Your task to perform on an android device: Open Google Chrome and open the bookmarks view Image 0: 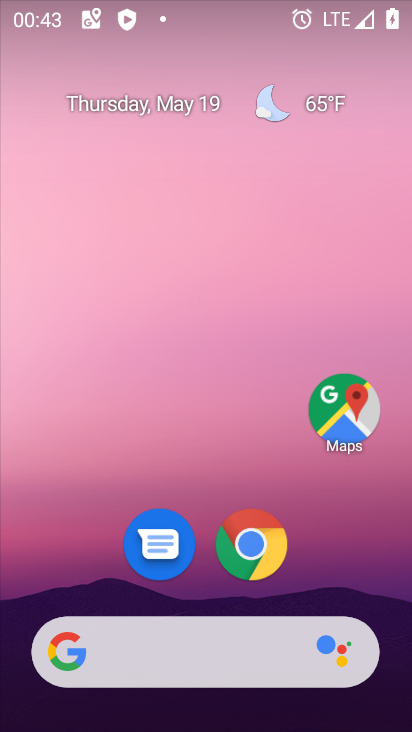
Step 0: drag from (384, 588) to (381, 169)
Your task to perform on an android device: Open Google Chrome and open the bookmarks view Image 1: 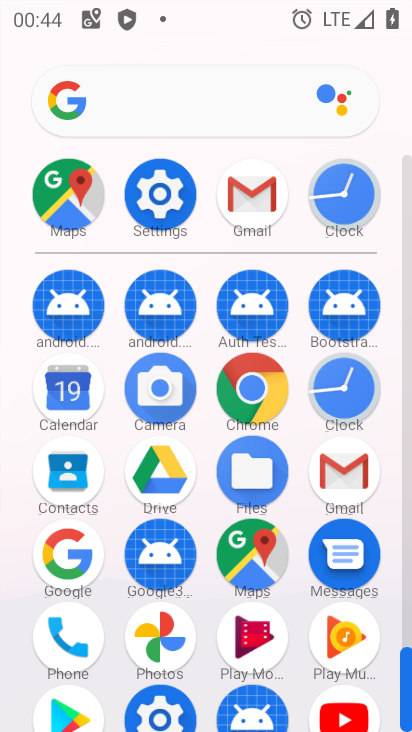
Step 1: click (247, 405)
Your task to perform on an android device: Open Google Chrome and open the bookmarks view Image 2: 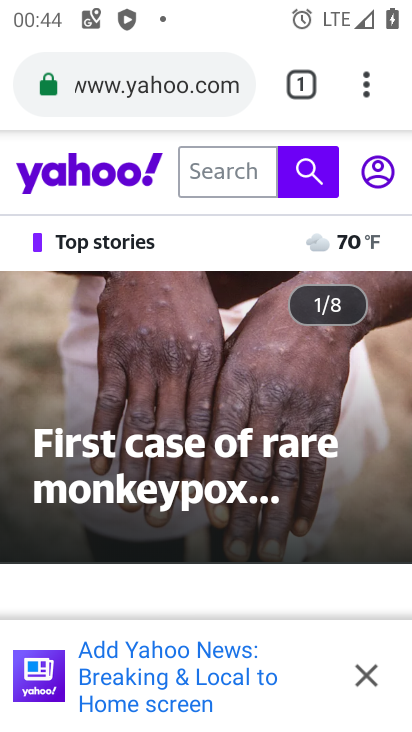
Step 2: click (366, 92)
Your task to perform on an android device: Open Google Chrome and open the bookmarks view Image 3: 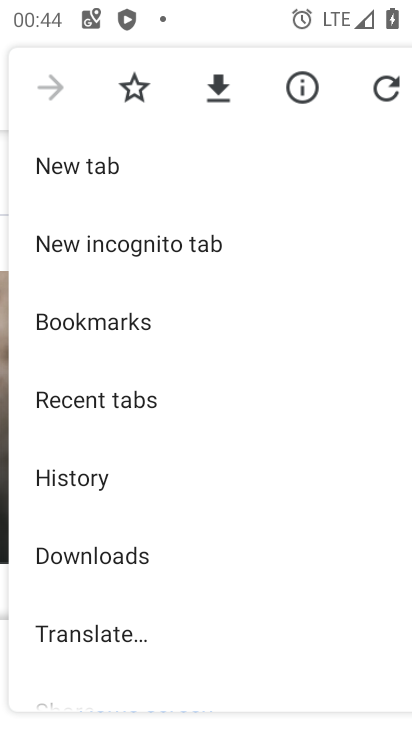
Step 3: drag from (324, 617) to (322, 487)
Your task to perform on an android device: Open Google Chrome and open the bookmarks view Image 4: 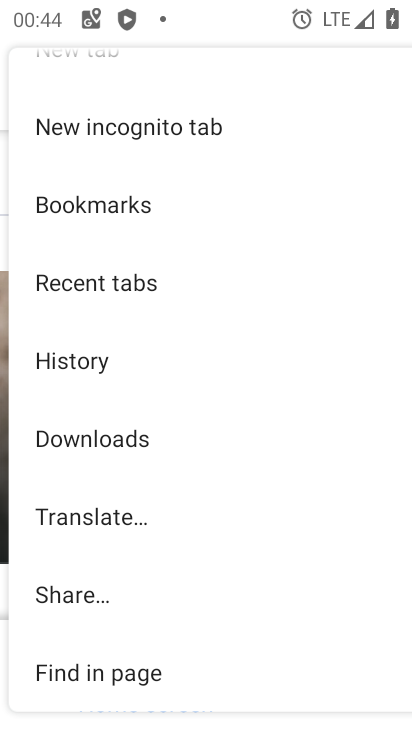
Step 4: drag from (330, 643) to (322, 461)
Your task to perform on an android device: Open Google Chrome and open the bookmarks view Image 5: 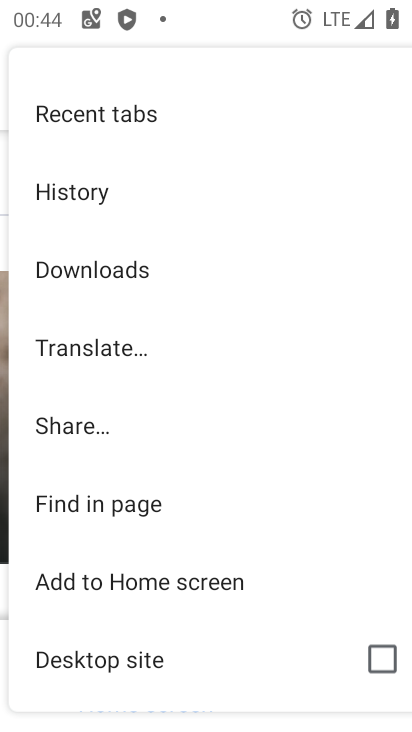
Step 5: drag from (298, 629) to (292, 499)
Your task to perform on an android device: Open Google Chrome and open the bookmarks view Image 6: 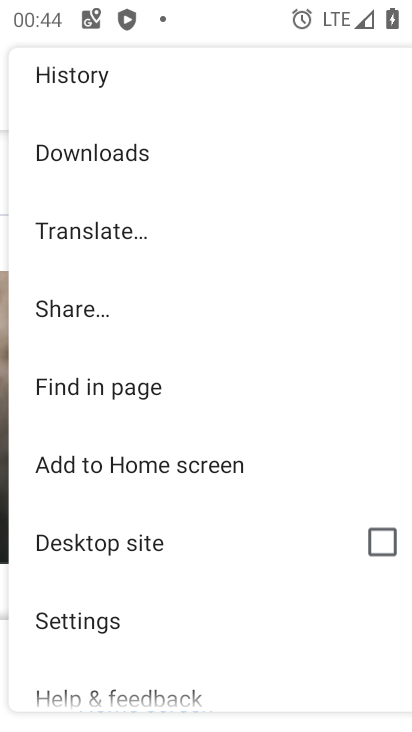
Step 6: drag from (271, 647) to (272, 507)
Your task to perform on an android device: Open Google Chrome and open the bookmarks view Image 7: 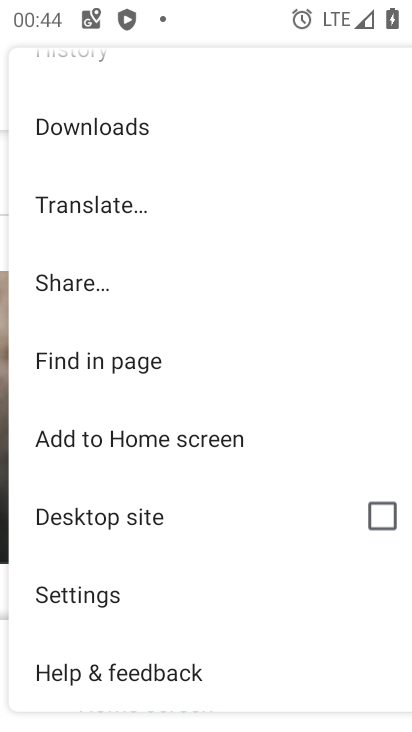
Step 7: drag from (281, 393) to (277, 479)
Your task to perform on an android device: Open Google Chrome and open the bookmarks view Image 8: 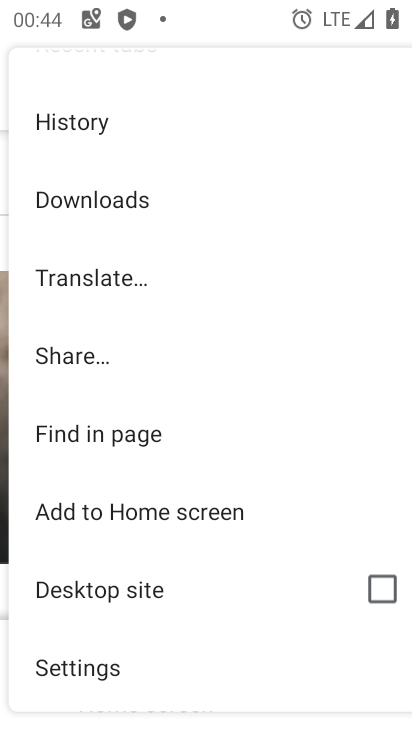
Step 8: drag from (275, 373) to (274, 461)
Your task to perform on an android device: Open Google Chrome and open the bookmarks view Image 9: 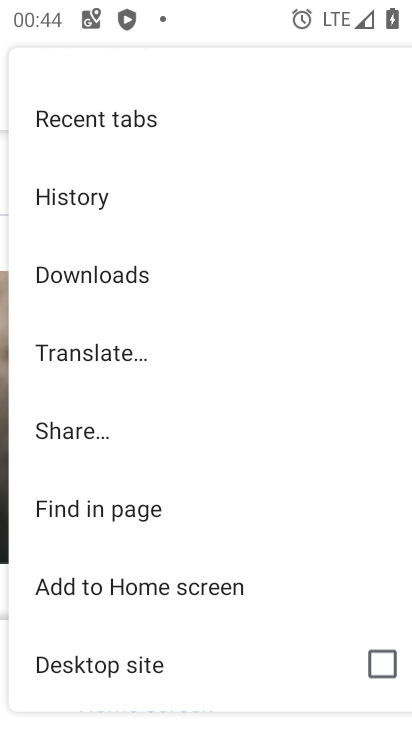
Step 9: drag from (282, 326) to (282, 436)
Your task to perform on an android device: Open Google Chrome and open the bookmarks view Image 10: 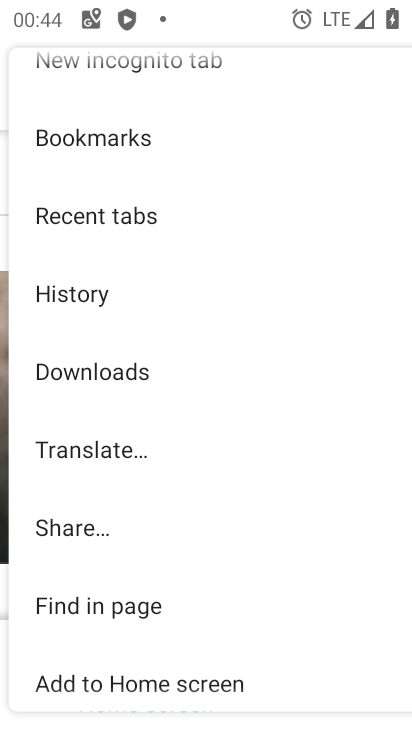
Step 10: drag from (289, 288) to (286, 410)
Your task to perform on an android device: Open Google Chrome and open the bookmarks view Image 11: 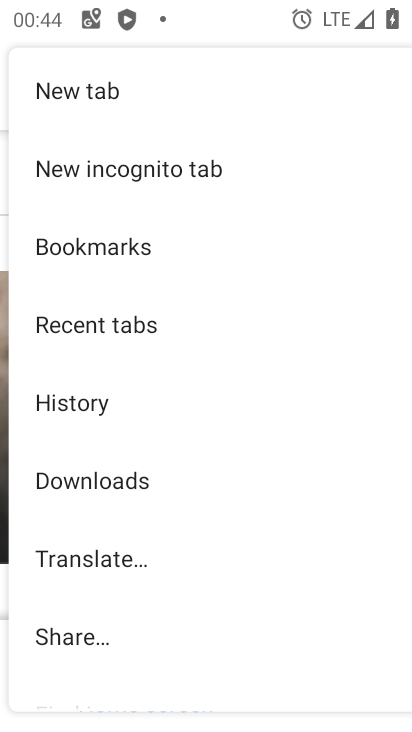
Step 11: drag from (295, 259) to (296, 370)
Your task to perform on an android device: Open Google Chrome and open the bookmarks view Image 12: 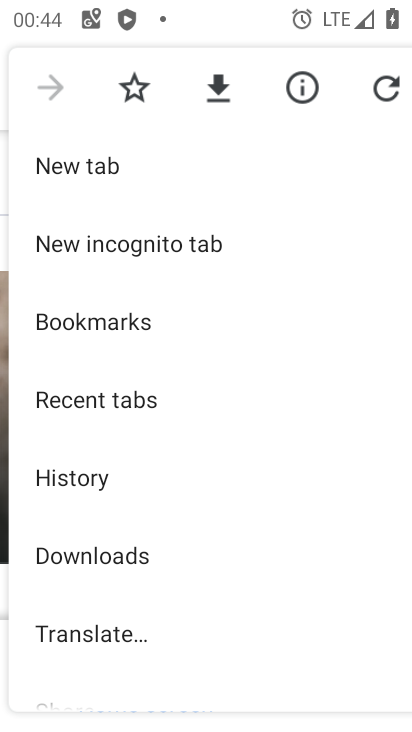
Step 12: drag from (274, 211) to (262, 328)
Your task to perform on an android device: Open Google Chrome and open the bookmarks view Image 13: 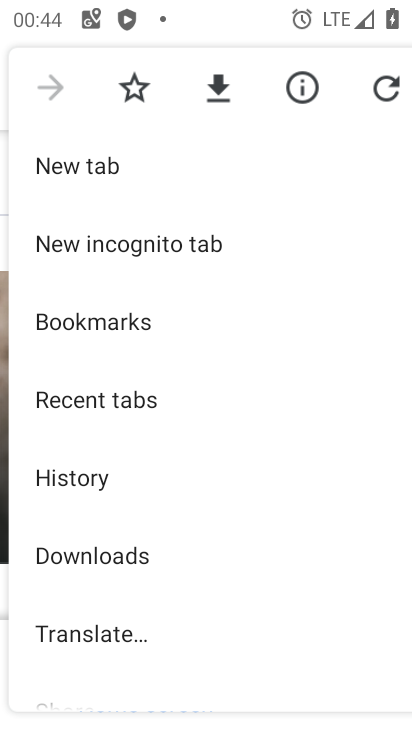
Step 13: click (199, 327)
Your task to perform on an android device: Open Google Chrome and open the bookmarks view Image 14: 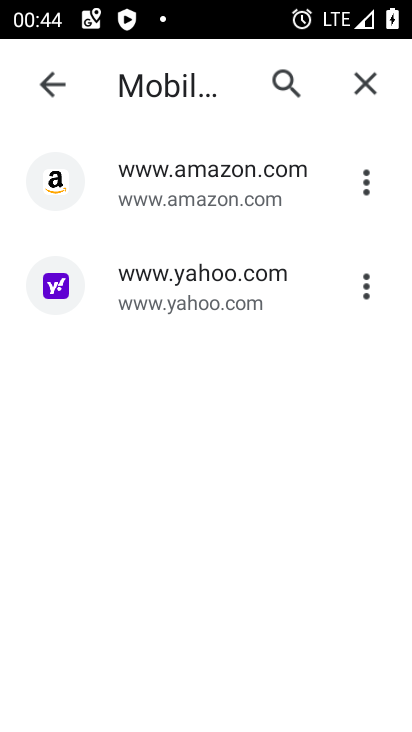
Step 14: task complete